Your task to perform on an android device: Open Google Chrome Image 0: 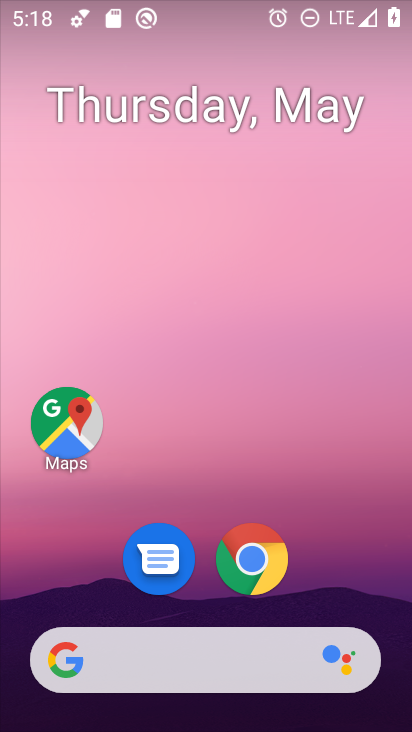
Step 0: click (268, 557)
Your task to perform on an android device: Open Google Chrome Image 1: 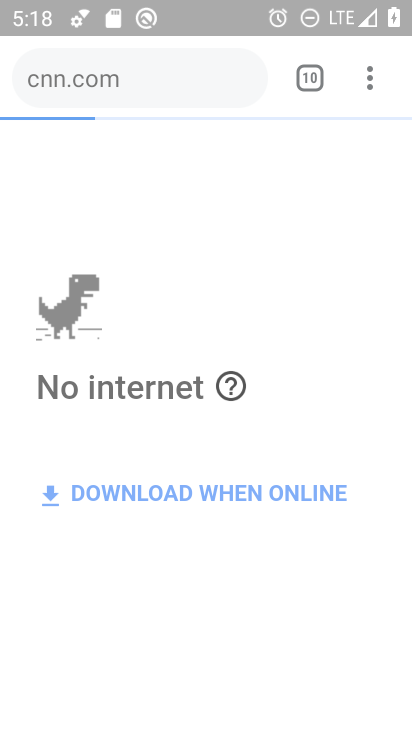
Step 1: task complete